Your task to perform on an android device: Open Amazon Image 0: 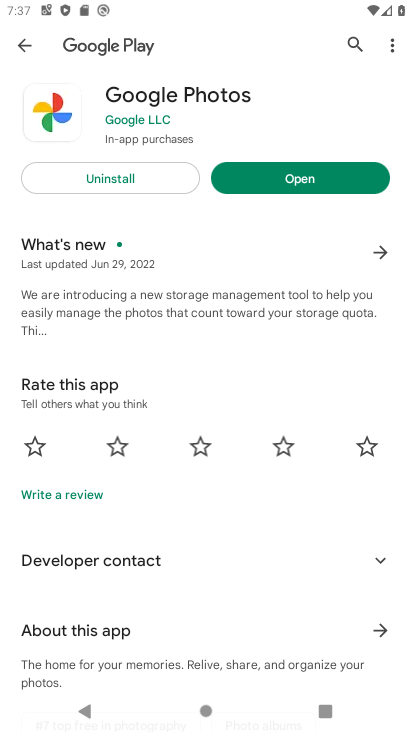
Step 0: press home button
Your task to perform on an android device: Open Amazon Image 1: 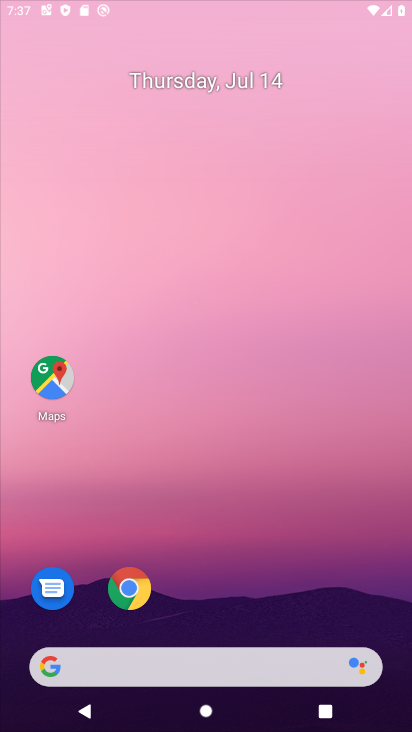
Step 1: drag from (393, 663) to (288, 34)
Your task to perform on an android device: Open Amazon Image 2: 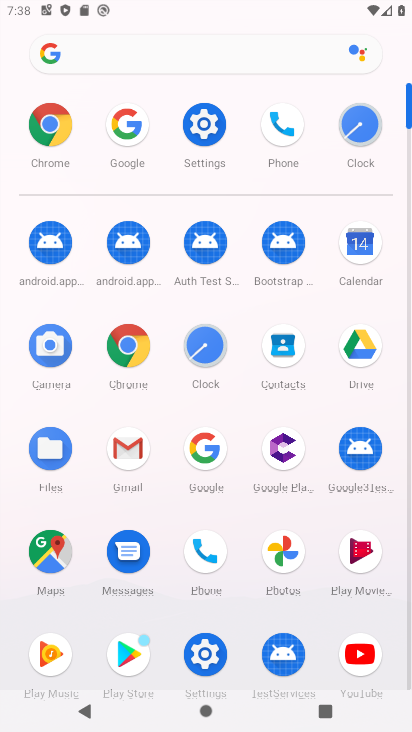
Step 2: click (210, 469)
Your task to perform on an android device: Open Amazon Image 3: 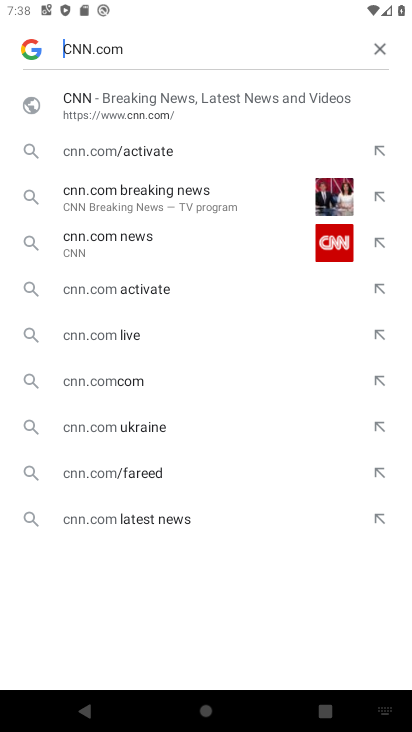
Step 3: click (382, 43)
Your task to perform on an android device: Open Amazon Image 4: 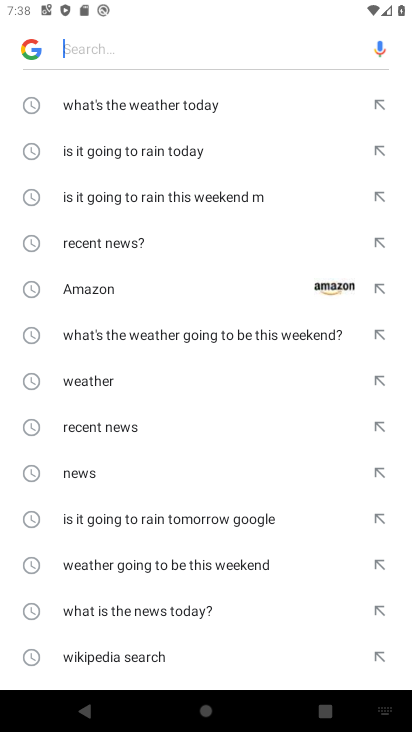
Step 4: click (206, 280)
Your task to perform on an android device: Open Amazon Image 5: 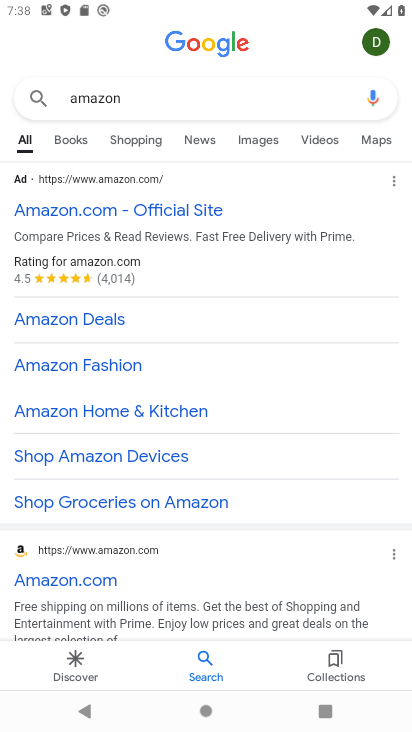
Step 5: task complete